Your task to perform on an android device: Show me popular games on the Play Store Image 0: 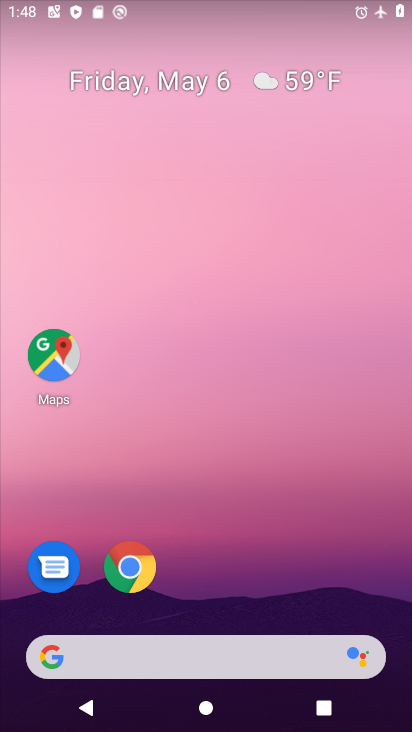
Step 0: drag from (264, 594) to (228, 20)
Your task to perform on an android device: Show me popular games on the Play Store Image 1: 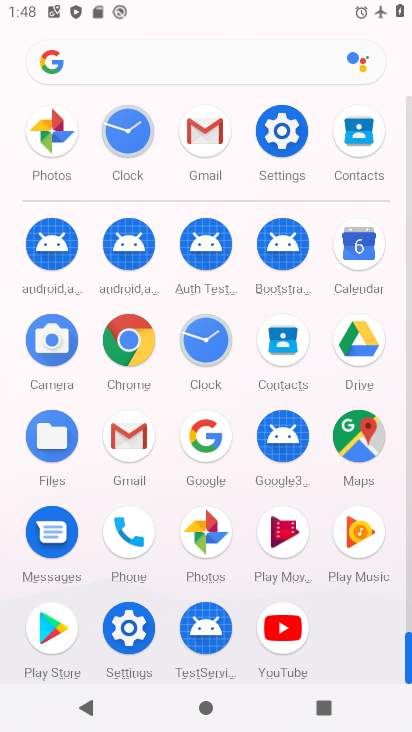
Step 1: click (45, 633)
Your task to perform on an android device: Show me popular games on the Play Store Image 2: 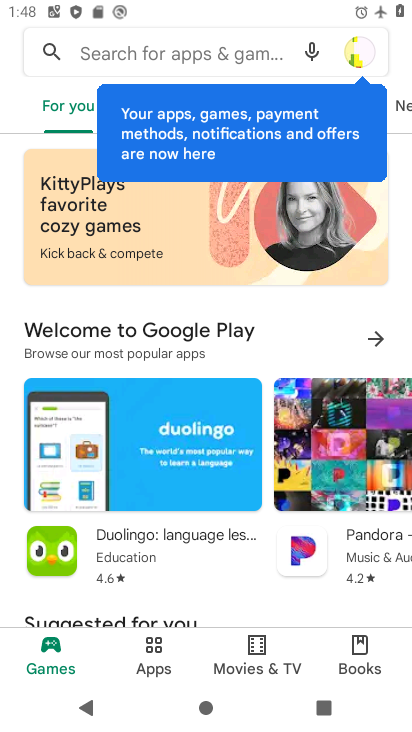
Step 2: drag from (234, 264) to (239, 146)
Your task to perform on an android device: Show me popular games on the Play Store Image 3: 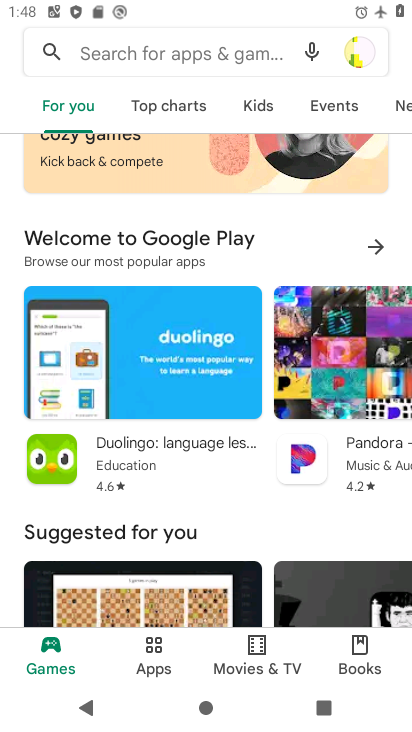
Step 3: click (176, 82)
Your task to perform on an android device: Show me popular games on the Play Store Image 4: 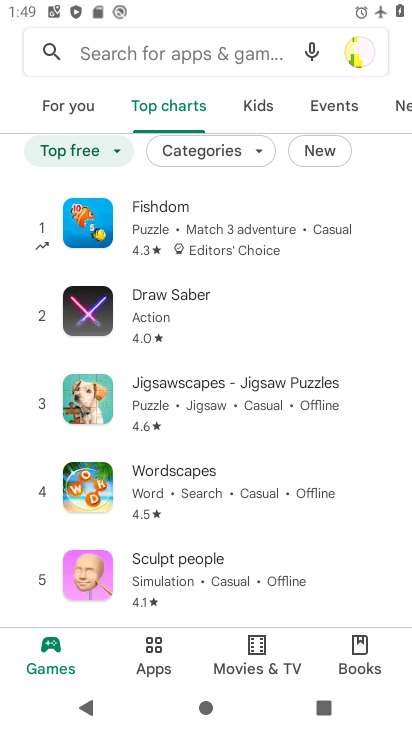
Step 4: task complete